Your task to perform on an android device: Go to Maps Image 0: 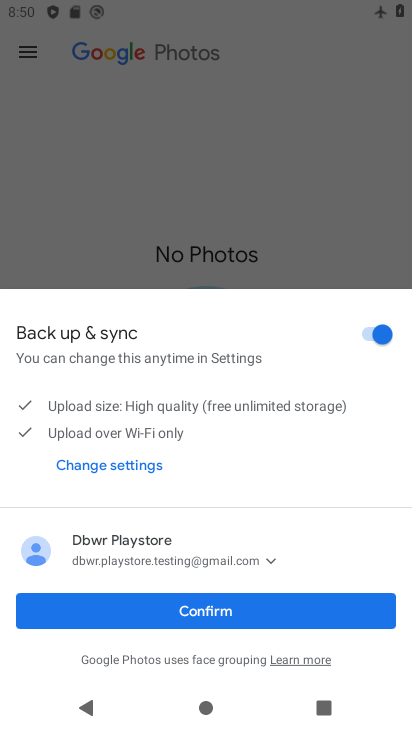
Step 0: press home button
Your task to perform on an android device: Go to Maps Image 1: 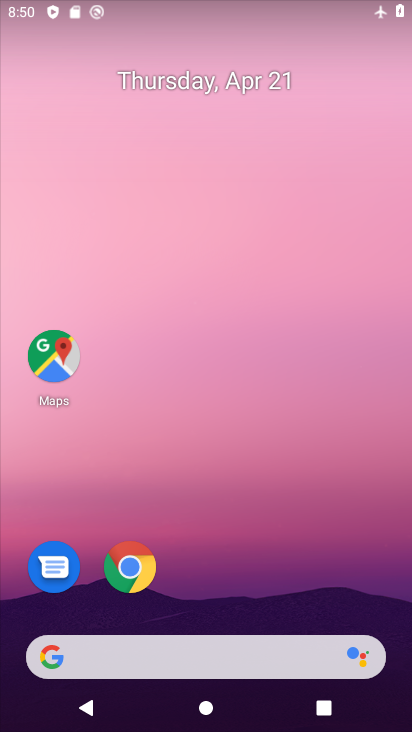
Step 1: click (51, 356)
Your task to perform on an android device: Go to Maps Image 2: 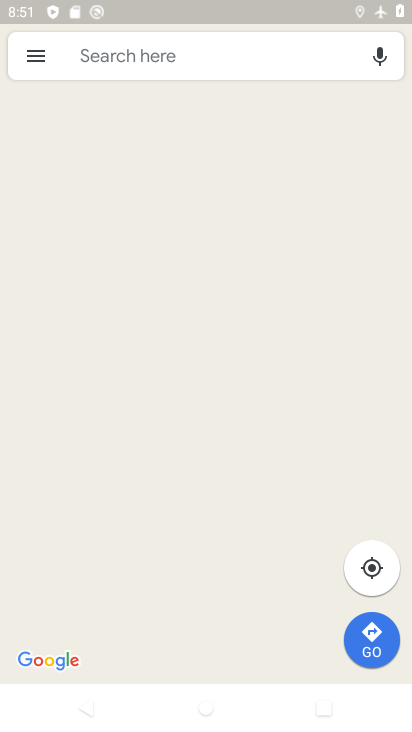
Step 2: task complete